Your task to perform on an android device: open wifi settings Image 0: 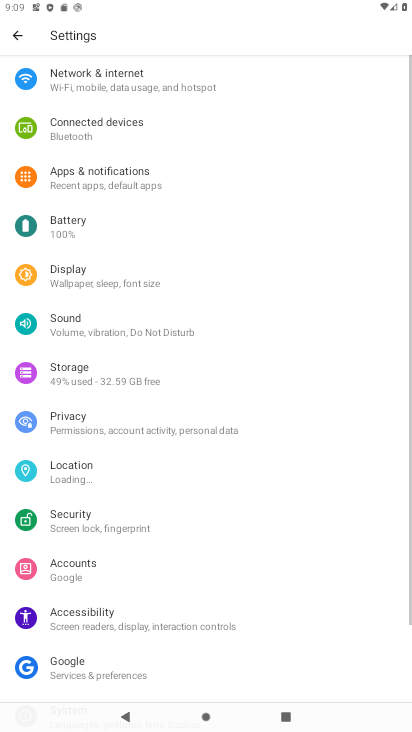
Step 0: click (191, 74)
Your task to perform on an android device: open wifi settings Image 1: 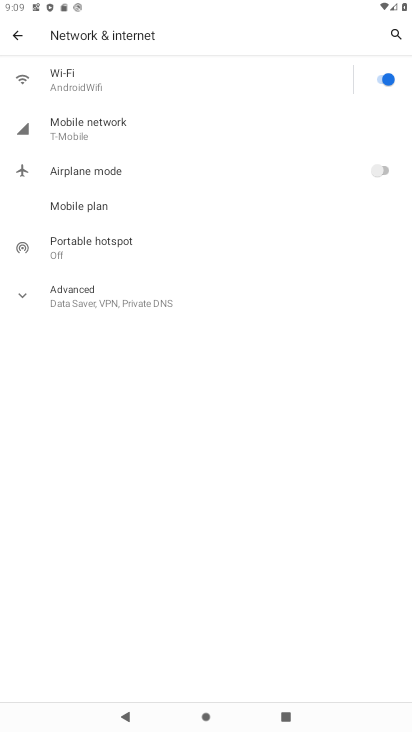
Step 1: click (191, 74)
Your task to perform on an android device: open wifi settings Image 2: 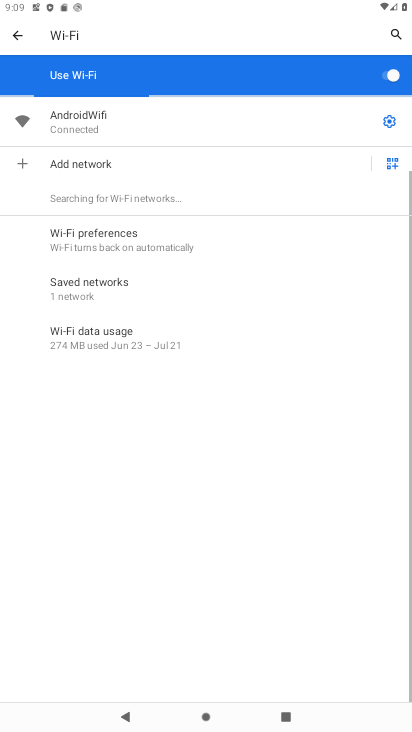
Step 2: task complete